Your task to perform on an android device: check the backup settings in the google photos Image 0: 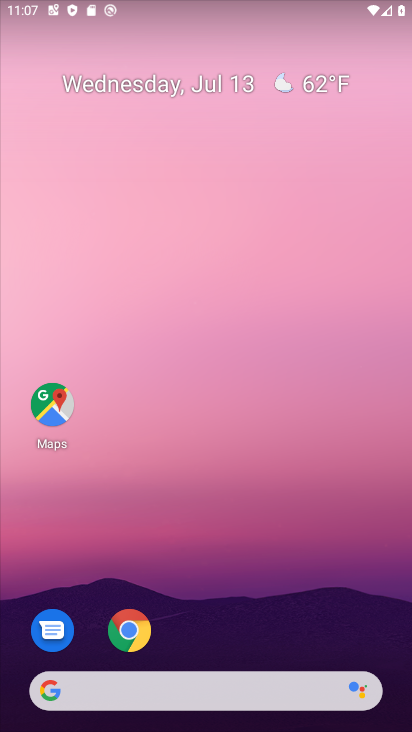
Step 0: drag from (313, 470) to (360, 130)
Your task to perform on an android device: check the backup settings in the google photos Image 1: 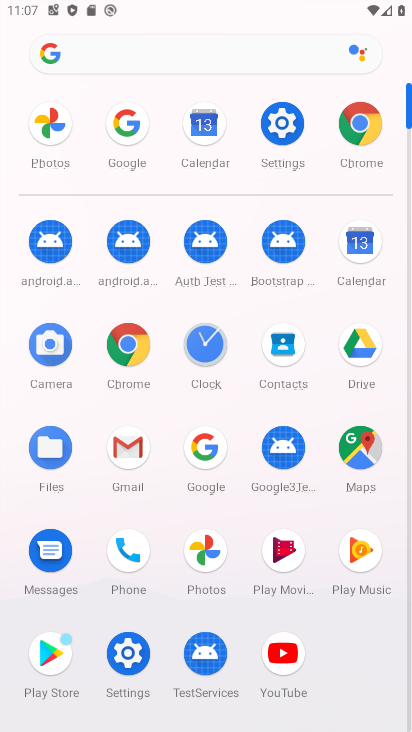
Step 1: click (209, 548)
Your task to perform on an android device: check the backup settings in the google photos Image 2: 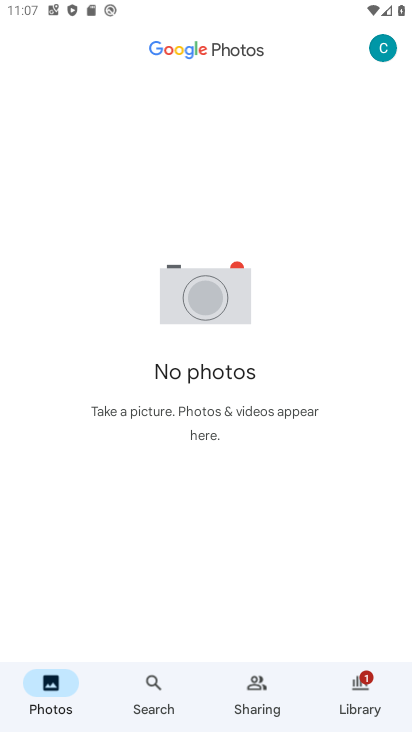
Step 2: click (387, 56)
Your task to perform on an android device: check the backup settings in the google photos Image 3: 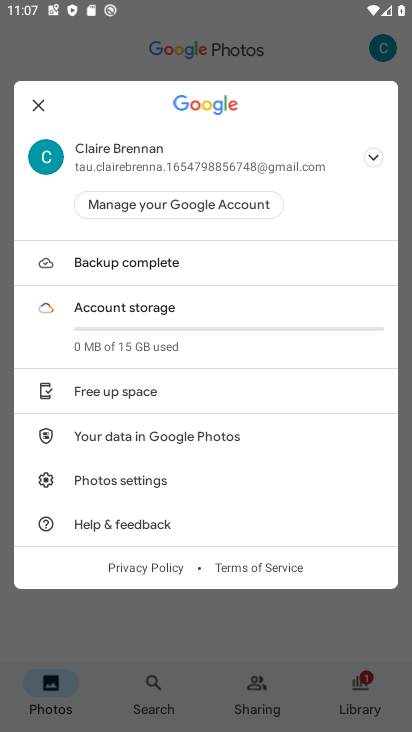
Step 3: click (125, 487)
Your task to perform on an android device: check the backup settings in the google photos Image 4: 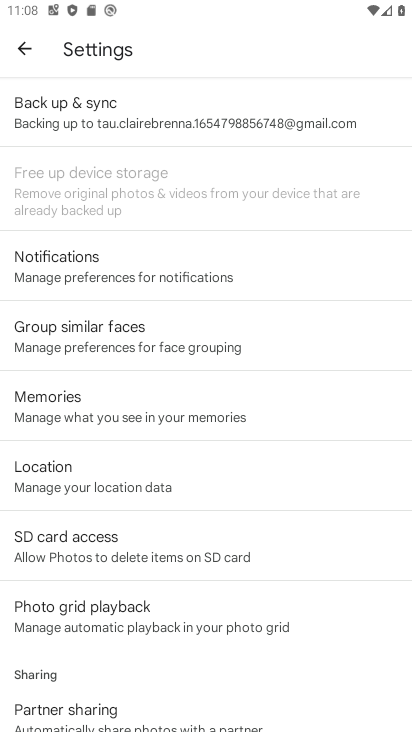
Step 4: click (79, 100)
Your task to perform on an android device: check the backup settings in the google photos Image 5: 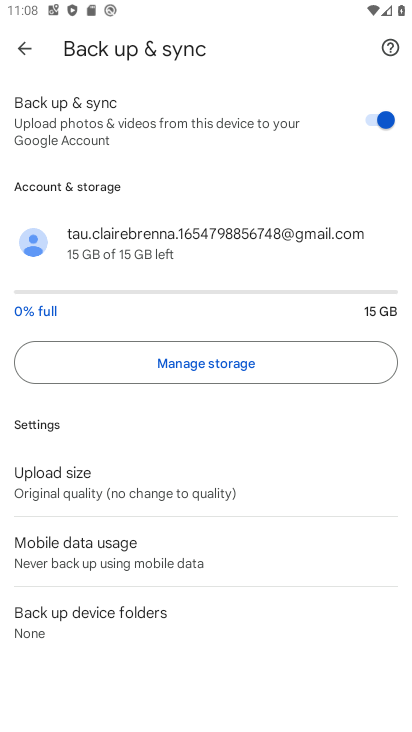
Step 5: task complete